Your task to perform on an android device: uninstall "Speedtest by Ookla" Image 0: 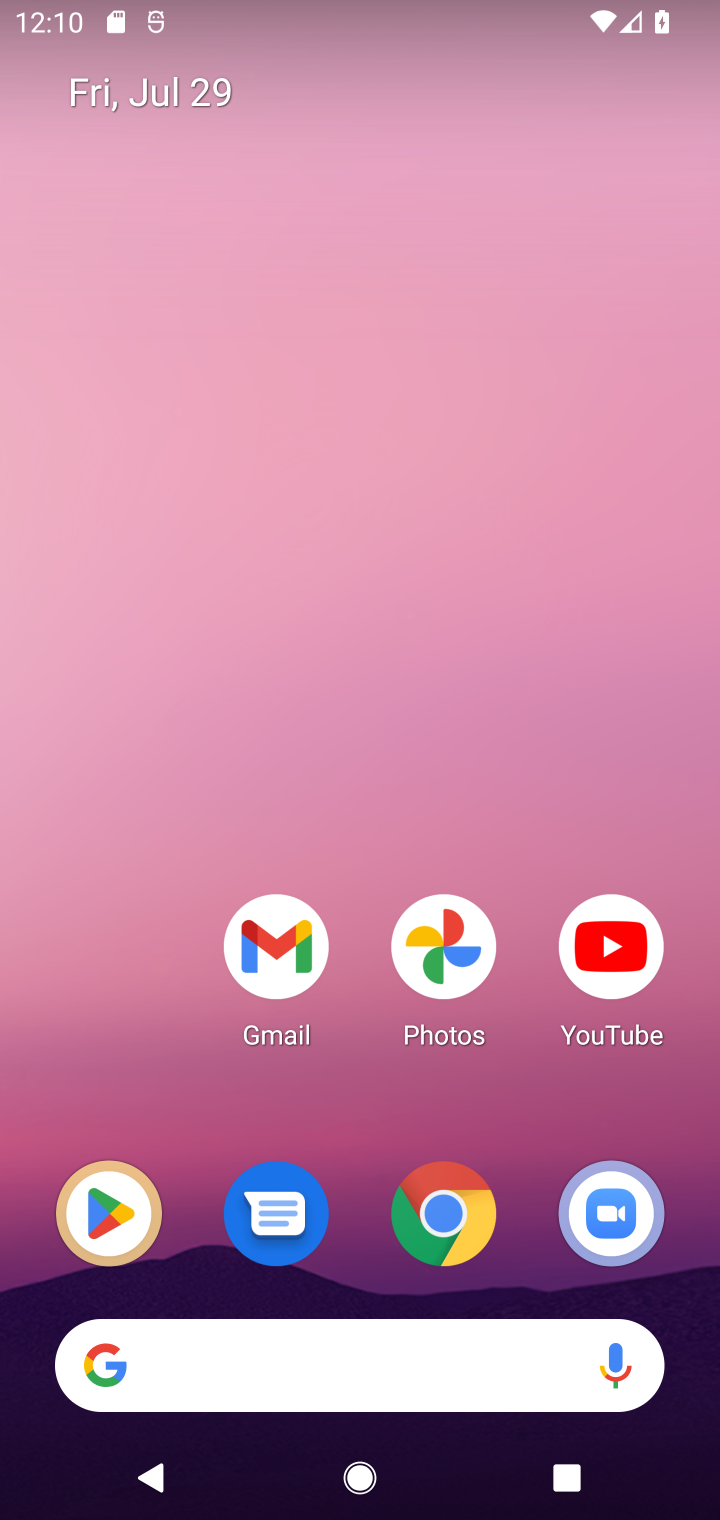
Step 0: drag from (408, 1410) to (408, 25)
Your task to perform on an android device: uninstall "Speedtest by Ookla" Image 1: 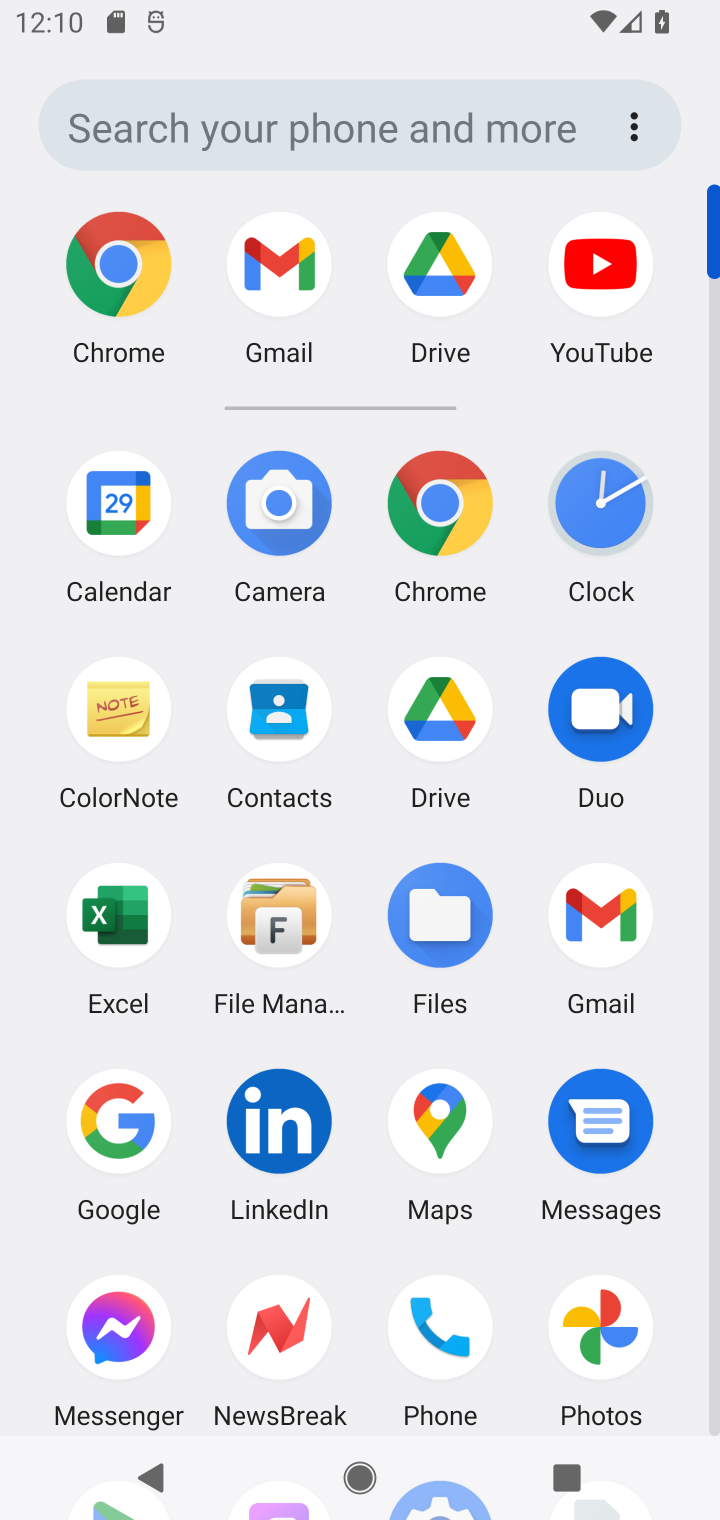
Step 1: drag from (173, 1238) to (118, 634)
Your task to perform on an android device: uninstall "Speedtest by Ookla" Image 2: 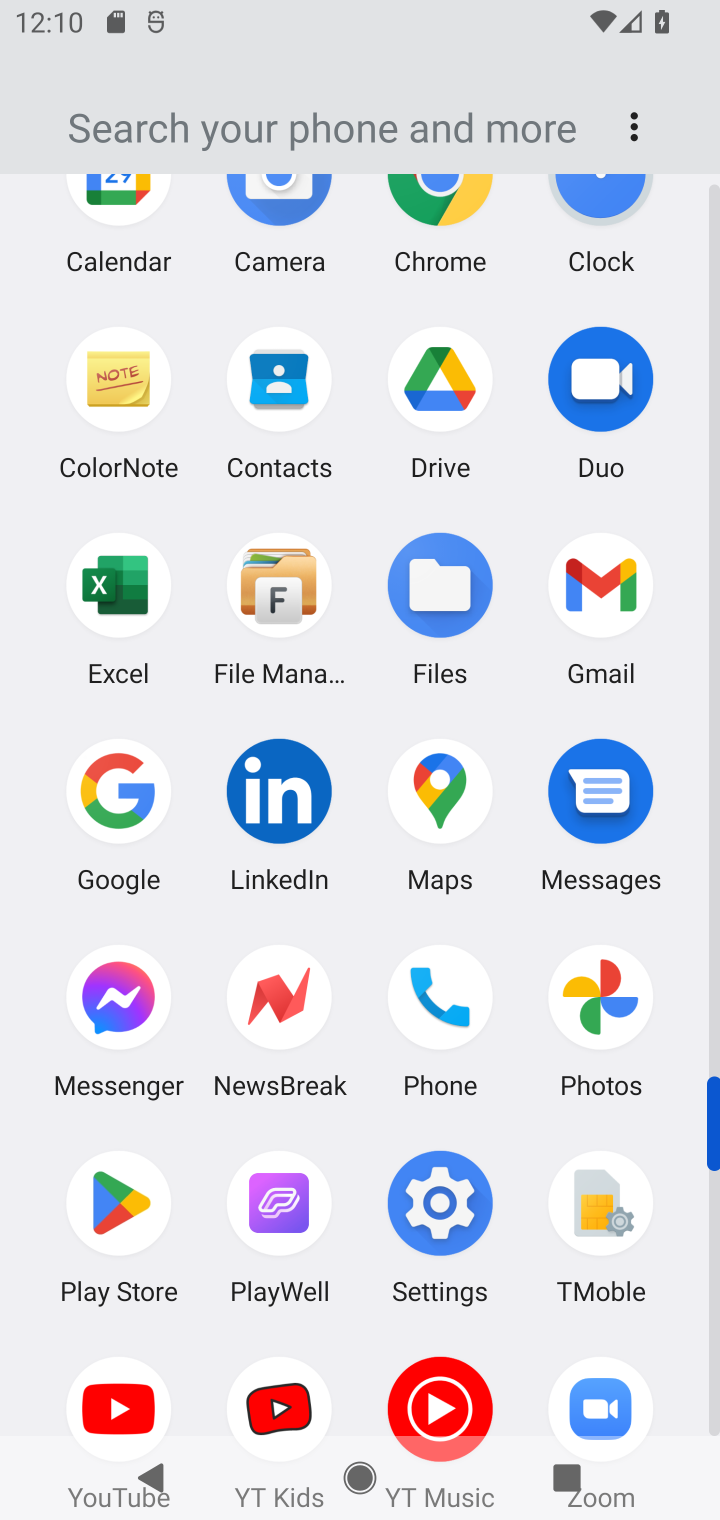
Step 2: click (141, 1205)
Your task to perform on an android device: uninstall "Speedtest by Ookla" Image 3: 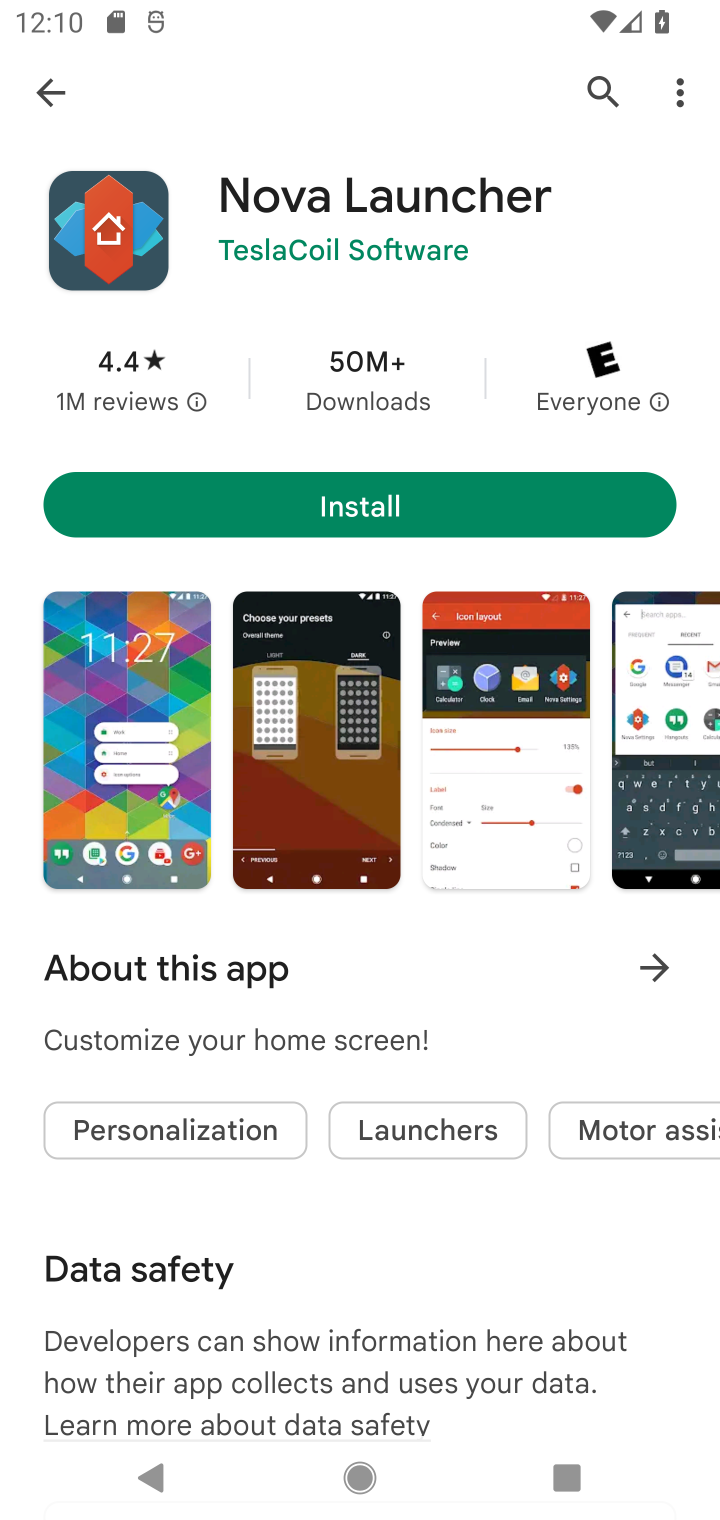
Step 3: click (601, 83)
Your task to perform on an android device: uninstall "Speedtest by Ookla" Image 4: 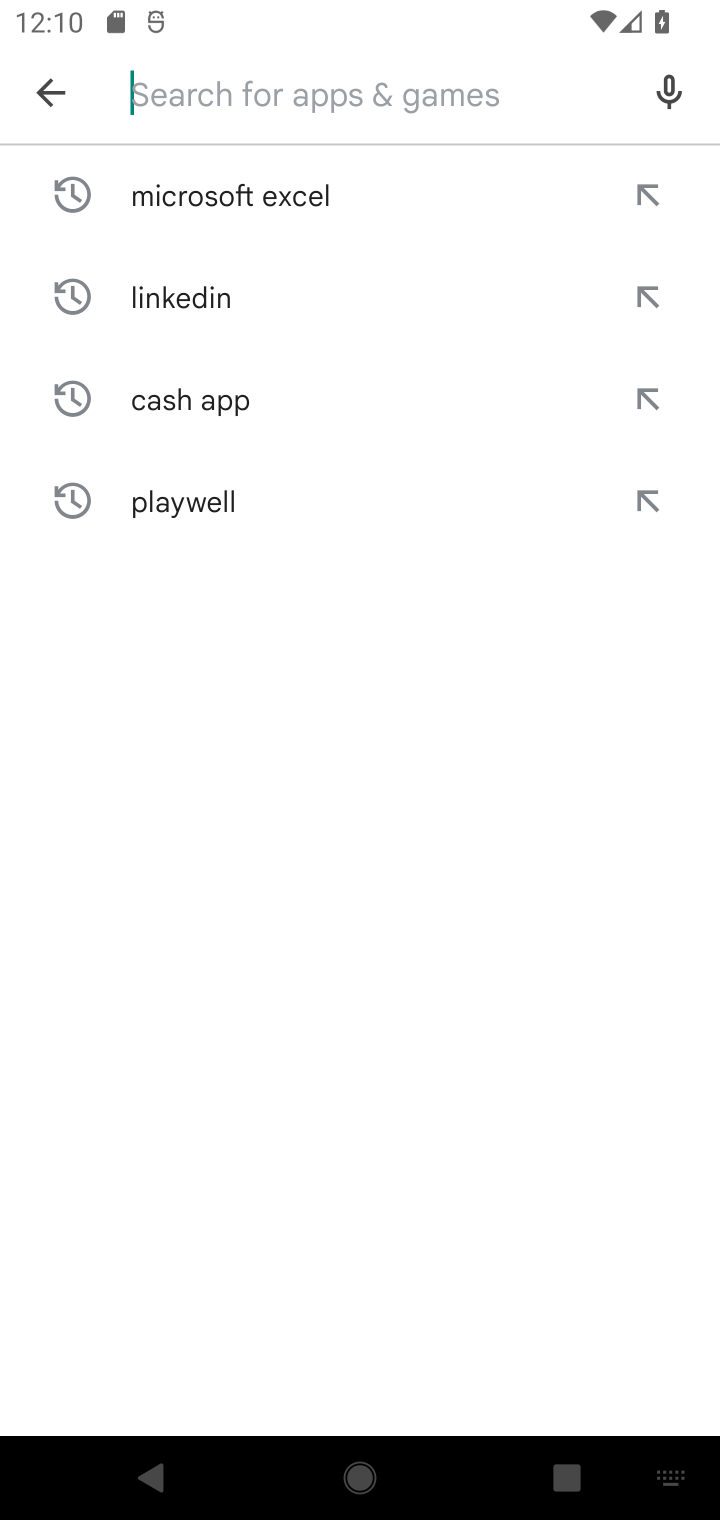
Step 4: type "Speedtest by Ookla"
Your task to perform on an android device: uninstall "Speedtest by Ookla" Image 5: 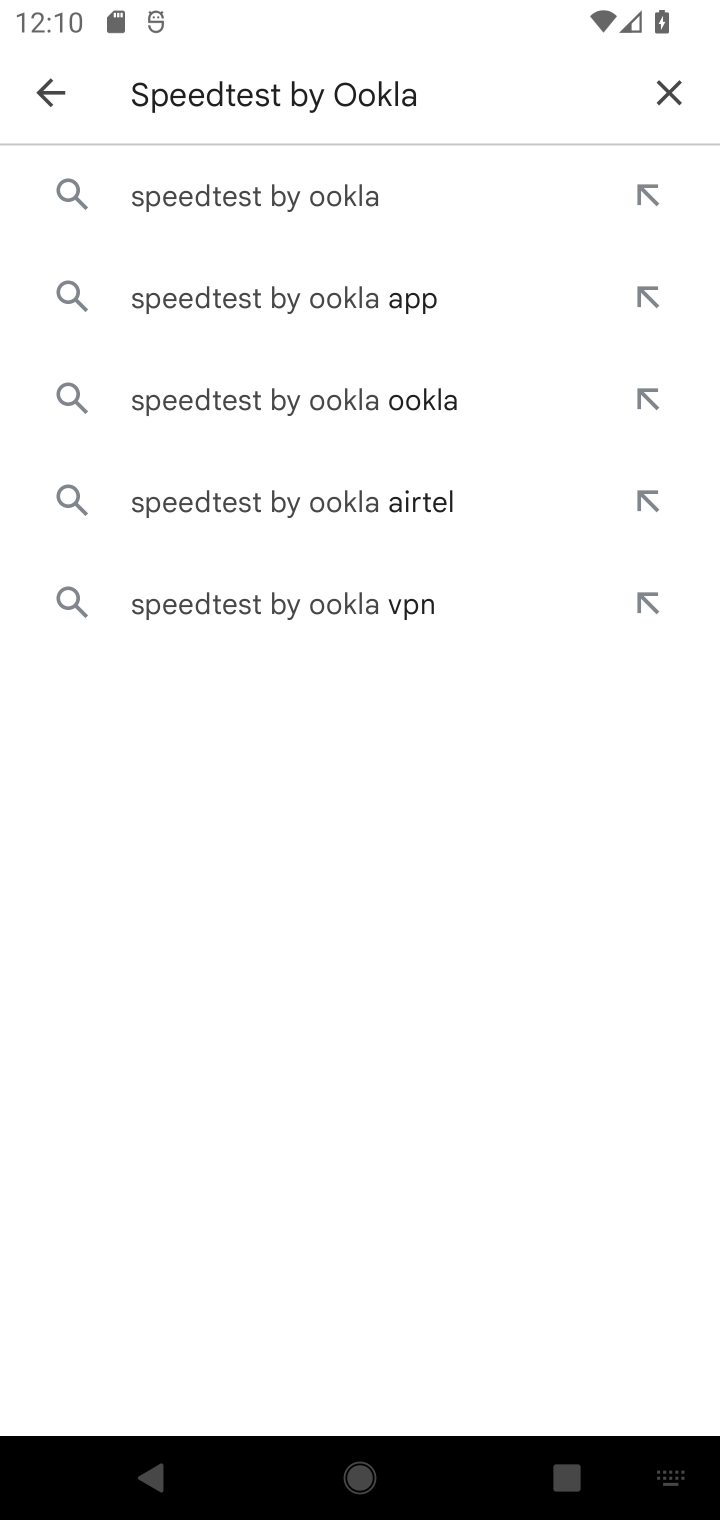
Step 5: click (230, 200)
Your task to perform on an android device: uninstall "Speedtest by Ookla" Image 6: 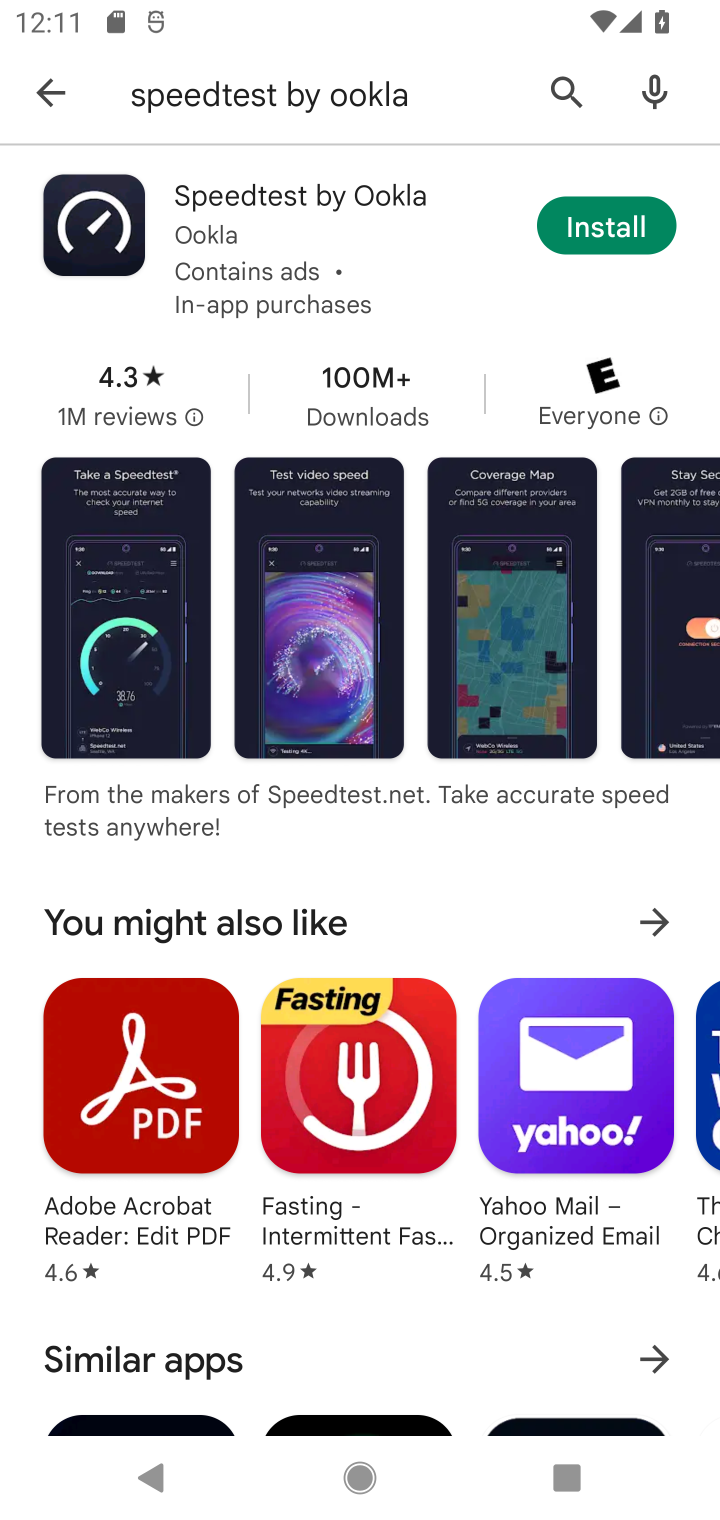
Step 6: task complete